Your task to perform on an android device: Open calendar and show me the first week of next month Image 0: 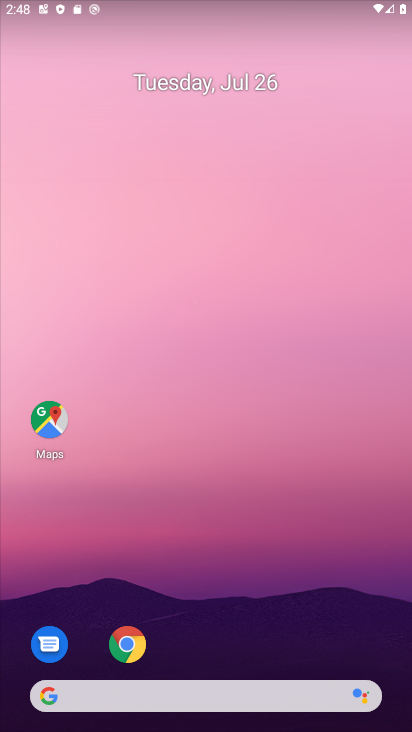
Step 0: press home button
Your task to perform on an android device: Open calendar and show me the first week of next month Image 1: 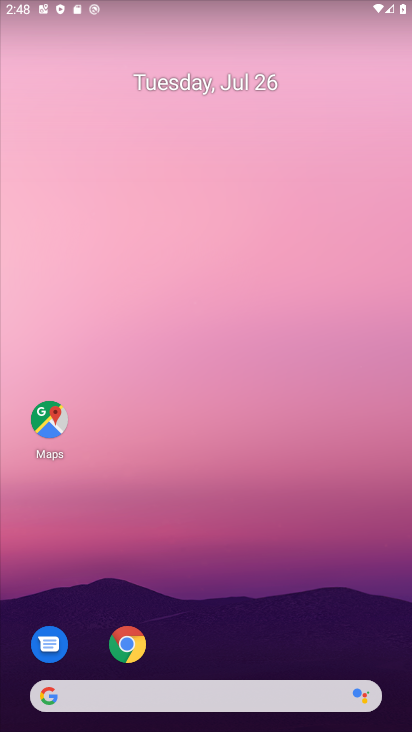
Step 1: drag from (239, 626) to (293, 112)
Your task to perform on an android device: Open calendar and show me the first week of next month Image 2: 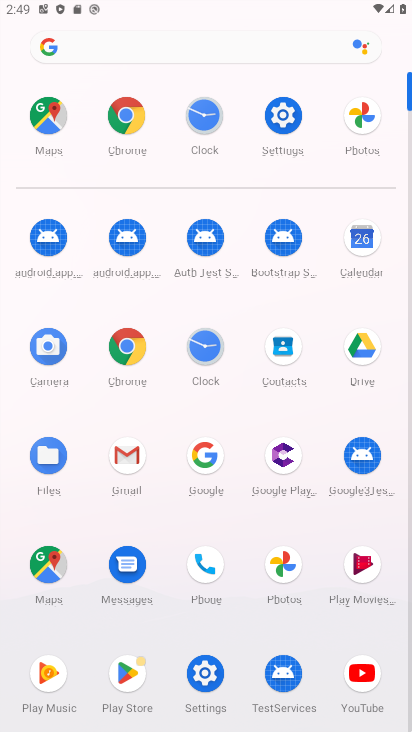
Step 2: click (364, 248)
Your task to perform on an android device: Open calendar and show me the first week of next month Image 3: 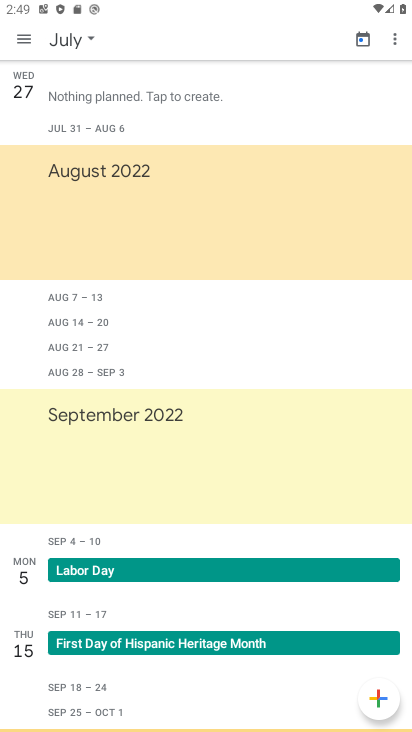
Step 3: click (24, 39)
Your task to perform on an android device: Open calendar and show me the first week of next month Image 4: 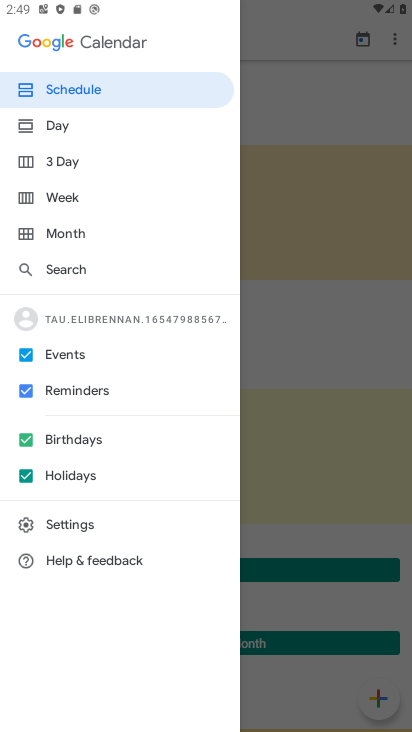
Step 4: click (84, 232)
Your task to perform on an android device: Open calendar and show me the first week of next month Image 5: 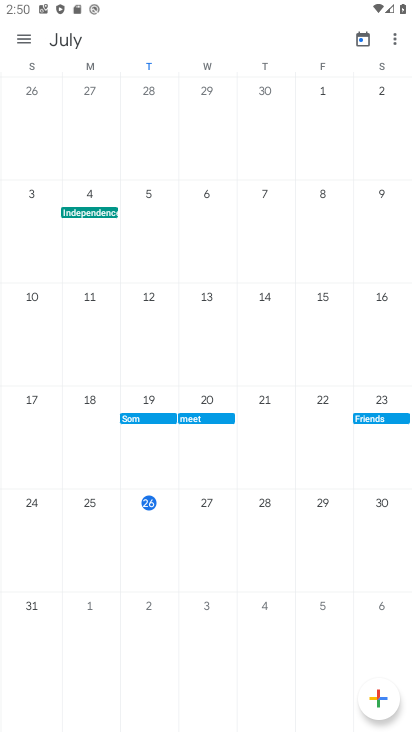
Step 5: task complete